Your task to perform on an android device: Open the web browser Image 0: 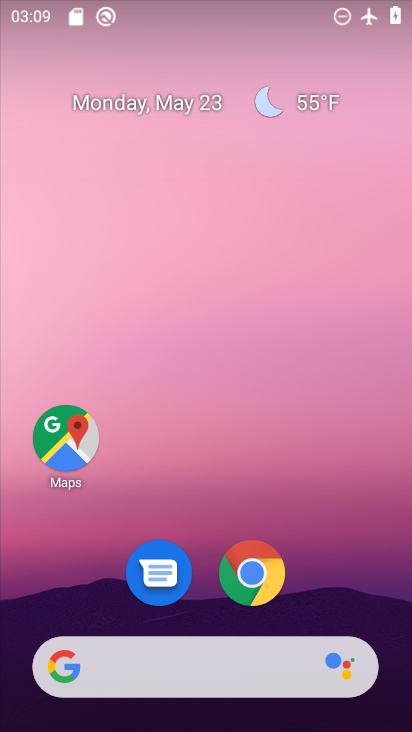
Step 0: click (255, 567)
Your task to perform on an android device: Open the web browser Image 1: 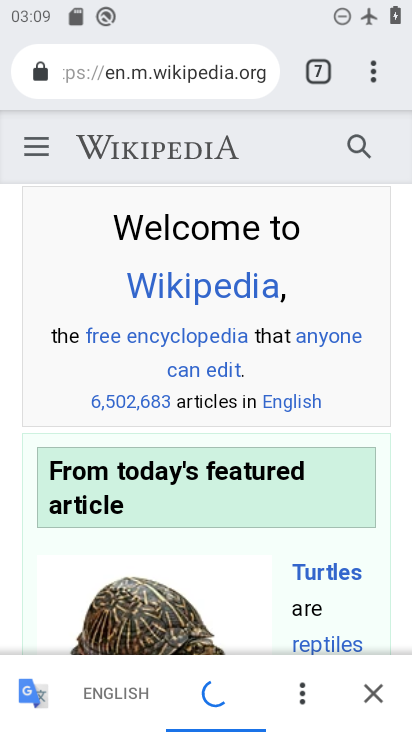
Step 1: task complete